Your task to perform on an android device: open chrome and create a bookmark for the current page Image 0: 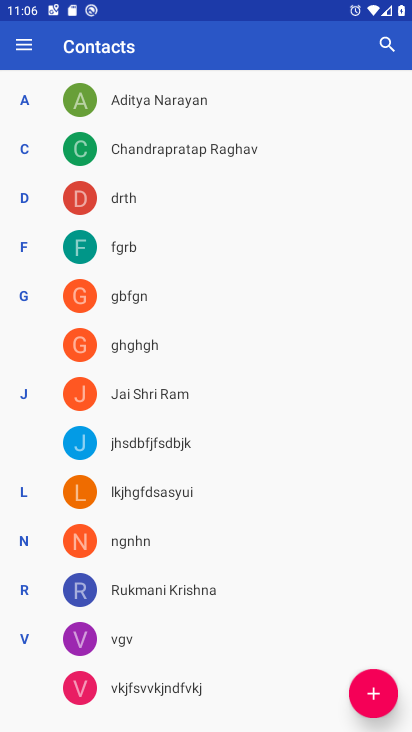
Step 0: drag from (173, 587) to (167, 191)
Your task to perform on an android device: open chrome and create a bookmark for the current page Image 1: 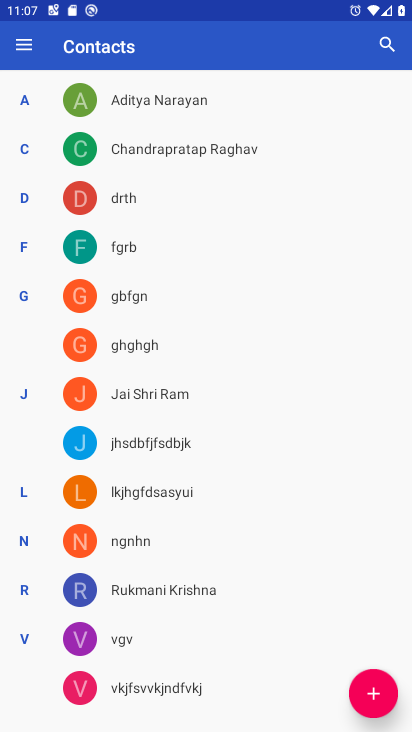
Step 1: drag from (247, 506) to (261, 296)
Your task to perform on an android device: open chrome and create a bookmark for the current page Image 2: 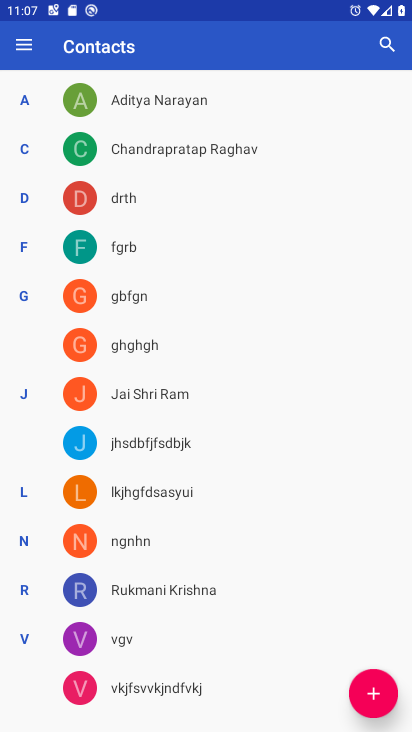
Step 2: press home button
Your task to perform on an android device: open chrome and create a bookmark for the current page Image 3: 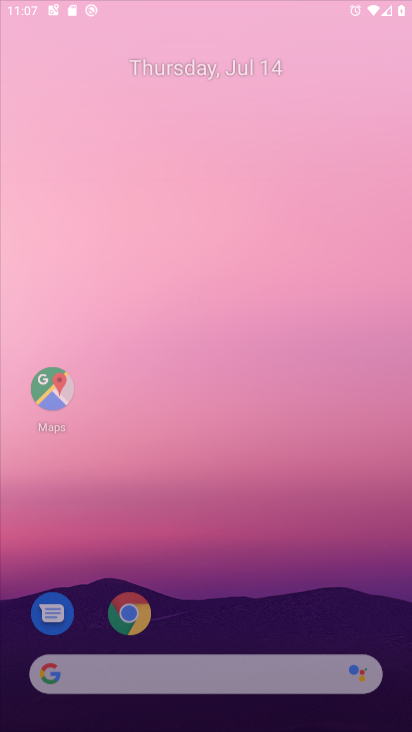
Step 3: drag from (241, 605) to (293, 1)
Your task to perform on an android device: open chrome and create a bookmark for the current page Image 4: 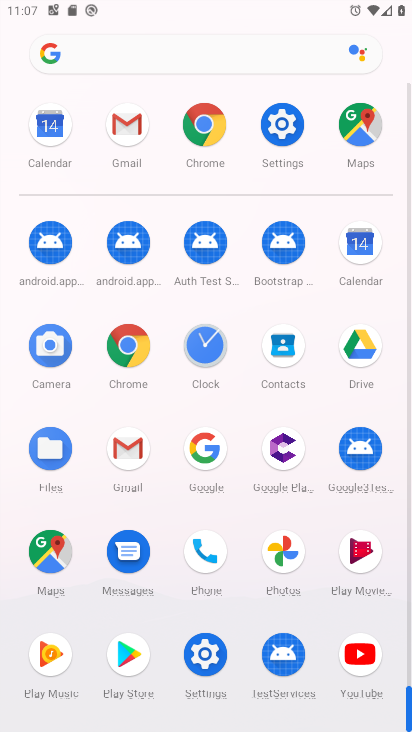
Step 4: click (127, 349)
Your task to perform on an android device: open chrome and create a bookmark for the current page Image 5: 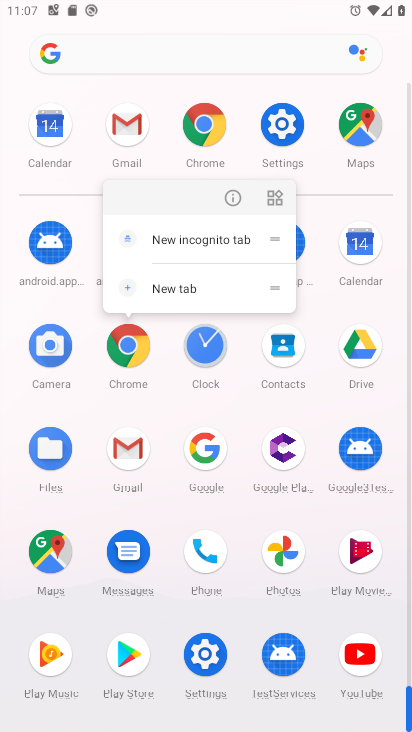
Step 5: click (231, 197)
Your task to perform on an android device: open chrome and create a bookmark for the current page Image 6: 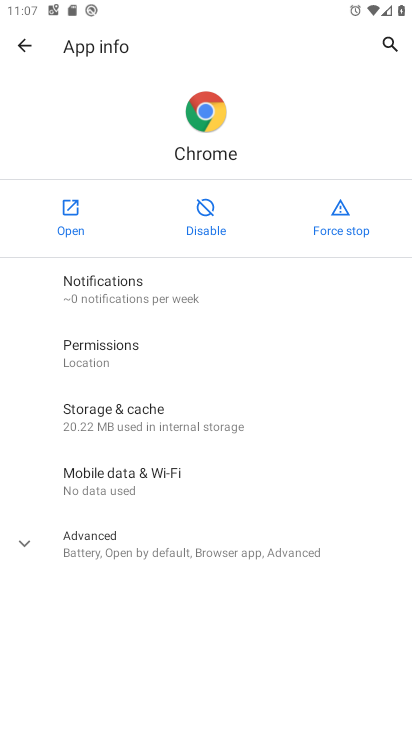
Step 6: click (80, 218)
Your task to perform on an android device: open chrome and create a bookmark for the current page Image 7: 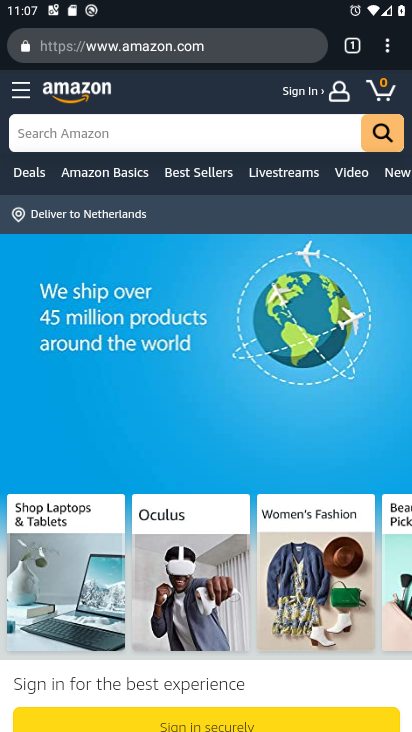
Step 7: drag from (385, 52) to (118, 91)
Your task to perform on an android device: open chrome and create a bookmark for the current page Image 8: 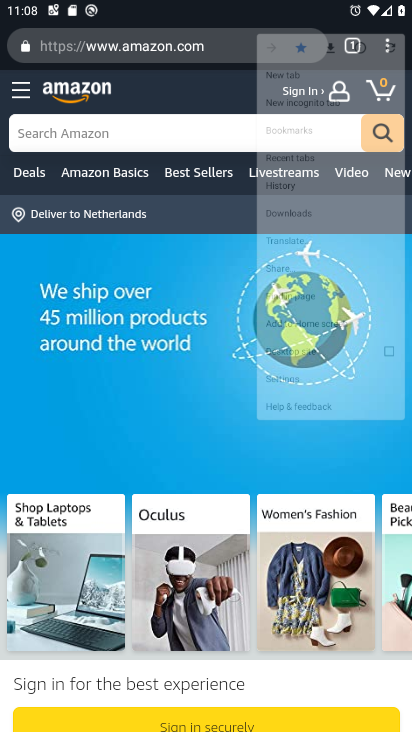
Step 8: click (117, 90)
Your task to perform on an android device: open chrome and create a bookmark for the current page Image 9: 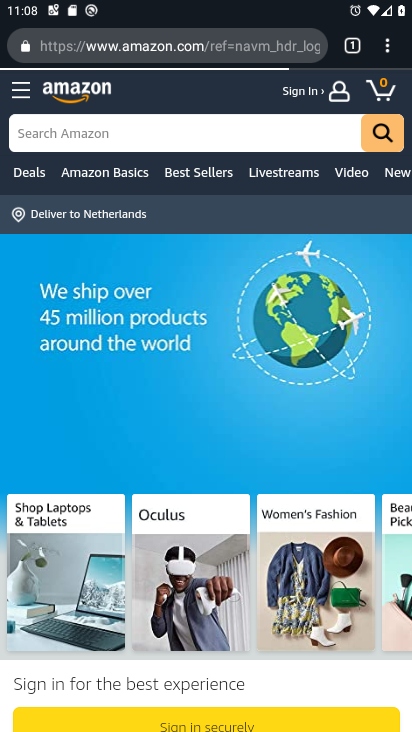
Step 9: task complete